Your task to perform on an android device: delete browsing data in the chrome app Image 0: 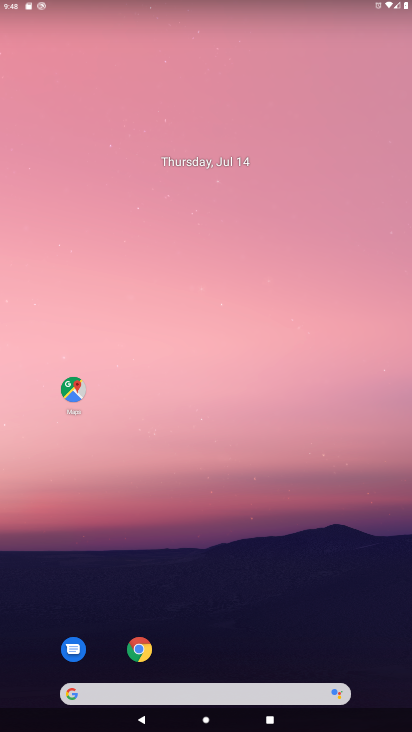
Step 0: click (138, 649)
Your task to perform on an android device: delete browsing data in the chrome app Image 1: 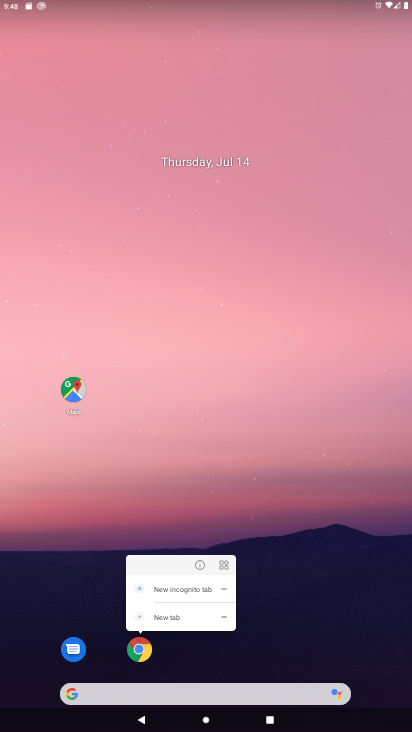
Step 1: click (138, 649)
Your task to perform on an android device: delete browsing data in the chrome app Image 2: 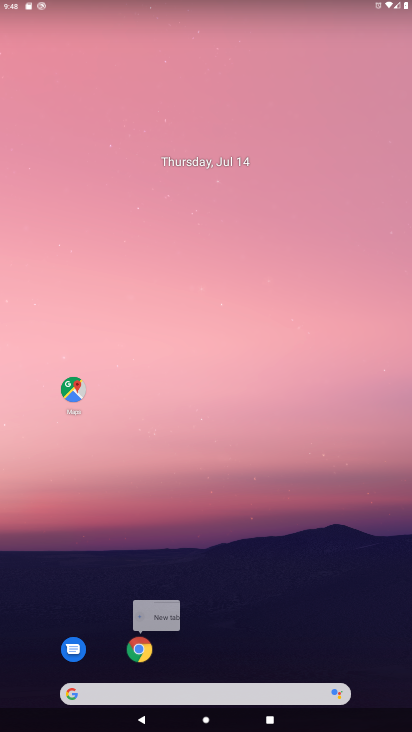
Step 2: click (138, 649)
Your task to perform on an android device: delete browsing data in the chrome app Image 3: 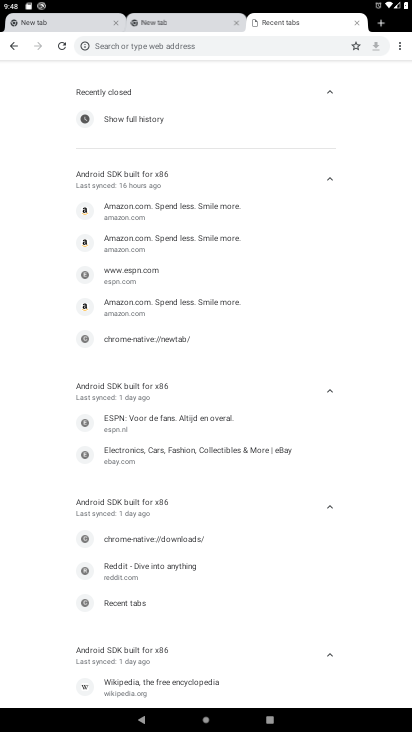
Step 3: click (398, 47)
Your task to perform on an android device: delete browsing data in the chrome app Image 4: 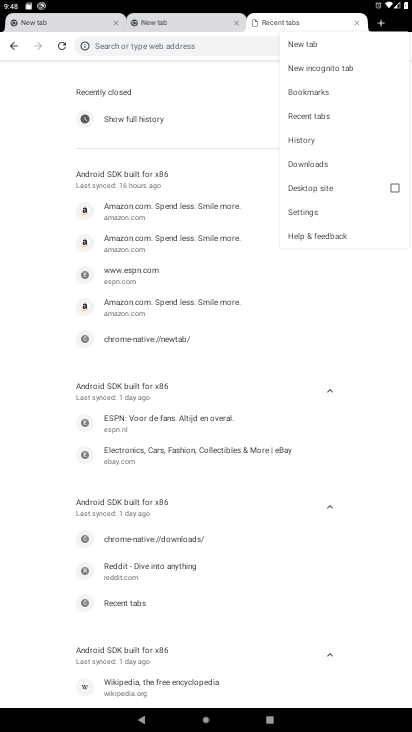
Step 4: click (311, 210)
Your task to perform on an android device: delete browsing data in the chrome app Image 5: 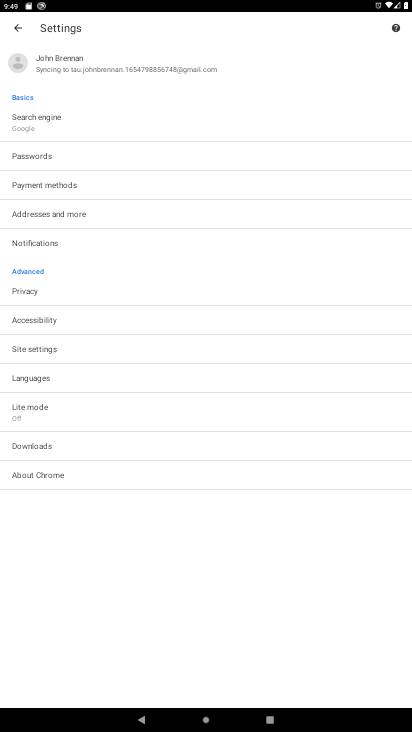
Step 5: press back button
Your task to perform on an android device: delete browsing data in the chrome app Image 6: 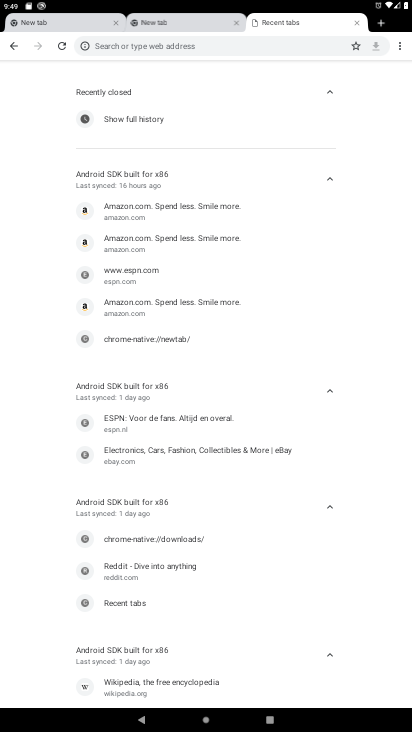
Step 6: click (398, 45)
Your task to perform on an android device: delete browsing data in the chrome app Image 7: 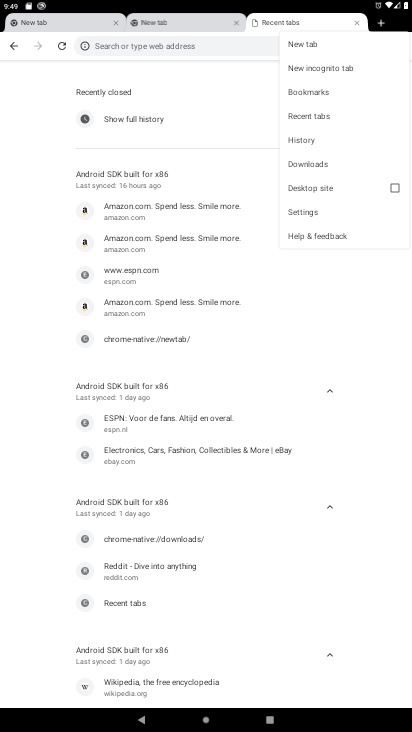
Step 7: click (317, 146)
Your task to perform on an android device: delete browsing data in the chrome app Image 8: 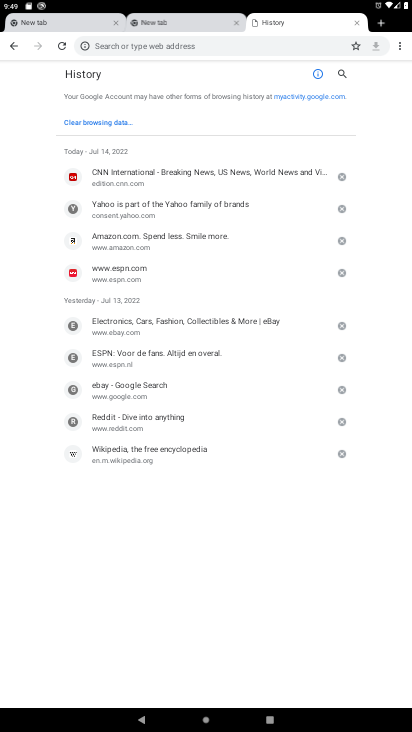
Step 8: click (103, 117)
Your task to perform on an android device: delete browsing data in the chrome app Image 9: 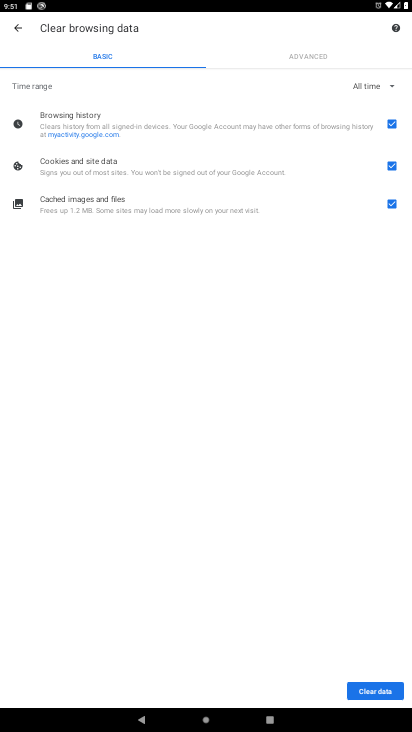
Step 9: press home button
Your task to perform on an android device: delete browsing data in the chrome app Image 10: 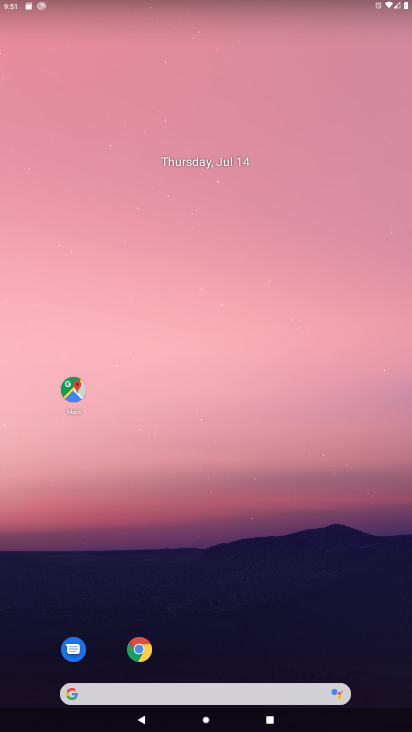
Step 10: click (140, 652)
Your task to perform on an android device: delete browsing data in the chrome app Image 11: 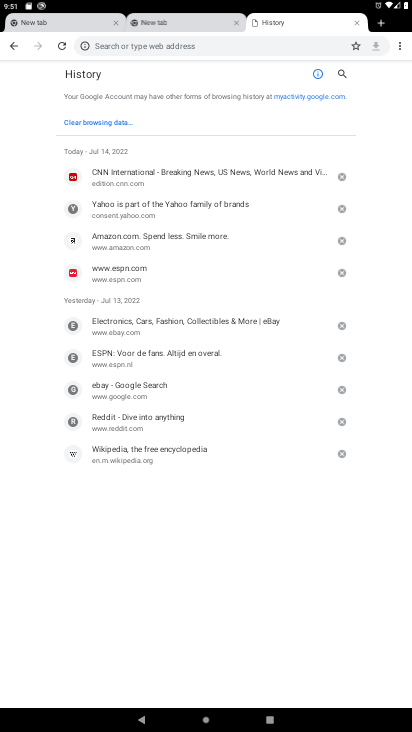
Step 11: click (92, 117)
Your task to perform on an android device: delete browsing data in the chrome app Image 12: 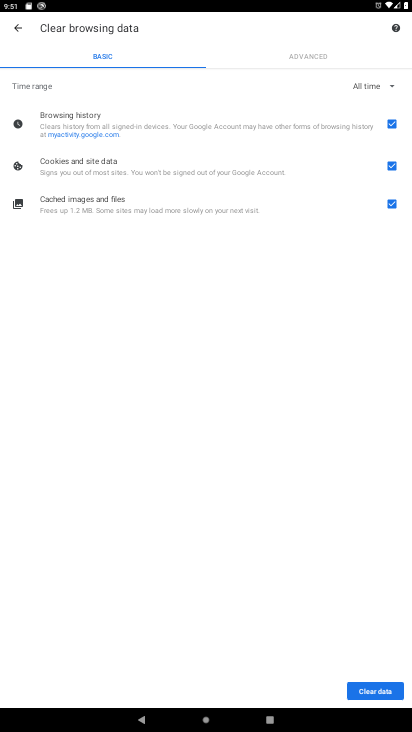
Step 12: click (379, 687)
Your task to perform on an android device: delete browsing data in the chrome app Image 13: 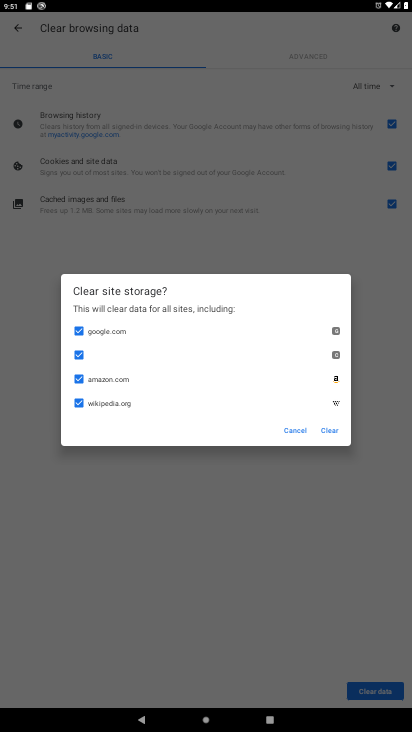
Step 13: click (326, 427)
Your task to perform on an android device: delete browsing data in the chrome app Image 14: 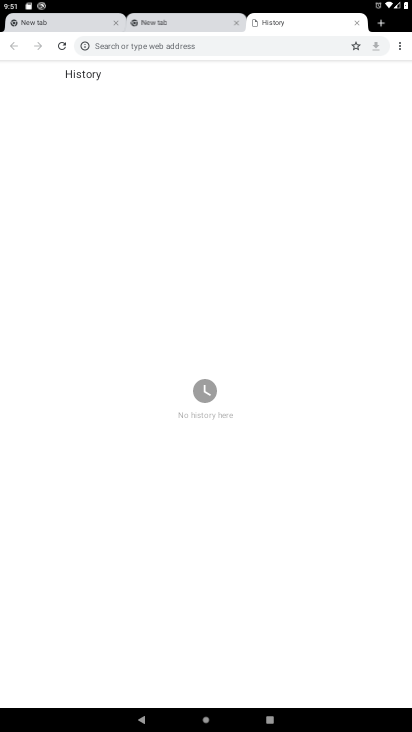
Step 14: task complete